Your task to perform on an android device: Search for floor lamps on article.com Image 0: 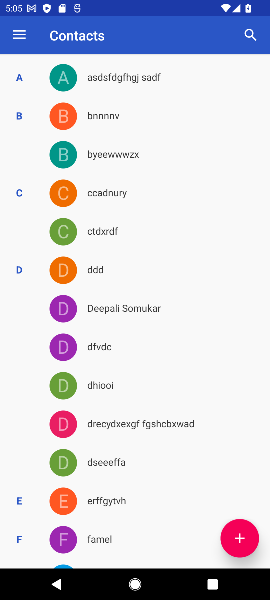
Step 0: press home button
Your task to perform on an android device: Search for floor lamps on article.com Image 1: 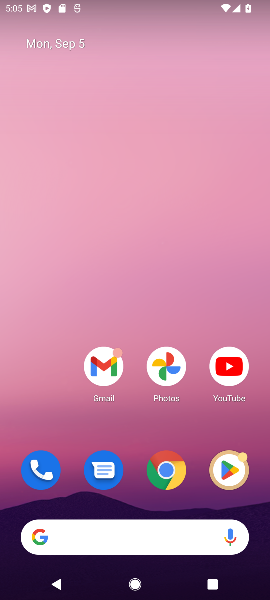
Step 1: click (144, 537)
Your task to perform on an android device: Search for floor lamps on article.com Image 2: 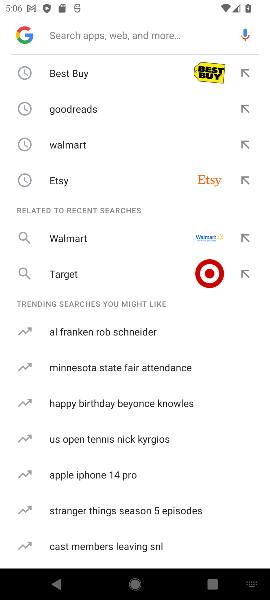
Step 2: type "article.com"
Your task to perform on an android device: Search for floor lamps on article.com Image 3: 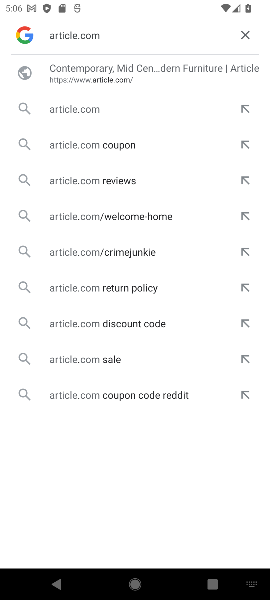
Step 3: press enter
Your task to perform on an android device: Search for floor lamps on article.com Image 4: 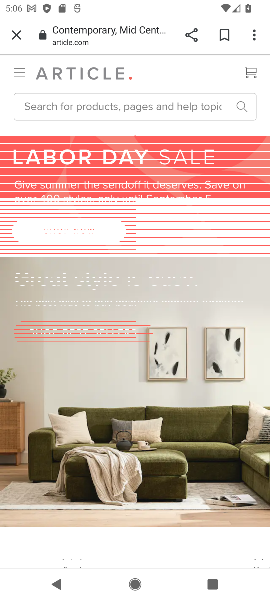
Step 4: click (115, 111)
Your task to perform on an android device: Search for floor lamps on article.com Image 5: 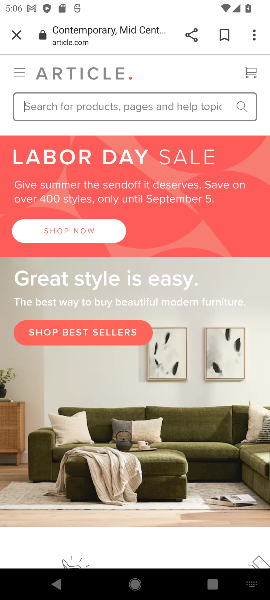
Step 5: type "floor lamps"
Your task to perform on an android device: Search for floor lamps on article.com Image 6: 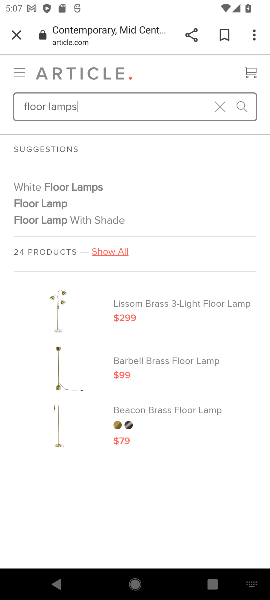
Step 6: task complete